Your task to perform on an android device: empty trash in the gmail app Image 0: 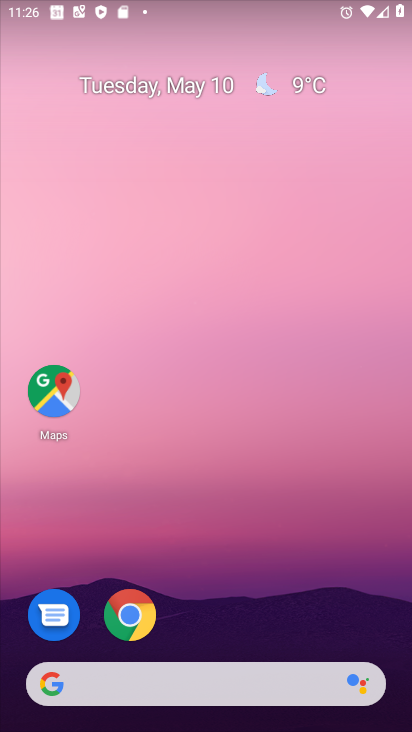
Step 0: drag from (234, 644) to (263, 312)
Your task to perform on an android device: empty trash in the gmail app Image 1: 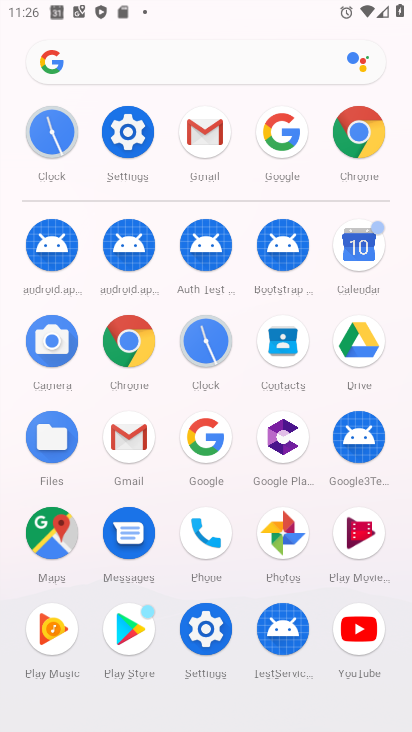
Step 1: click (132, 442)
Your task to perform on an android device: empty trash in the gmail app Image 2: 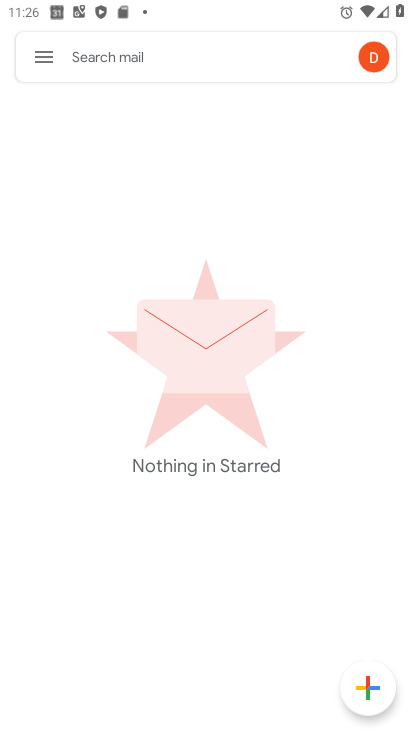
Step 2: click (32, 51)
Your task to perform on an android device: empty trash in the gmail app Image 3: 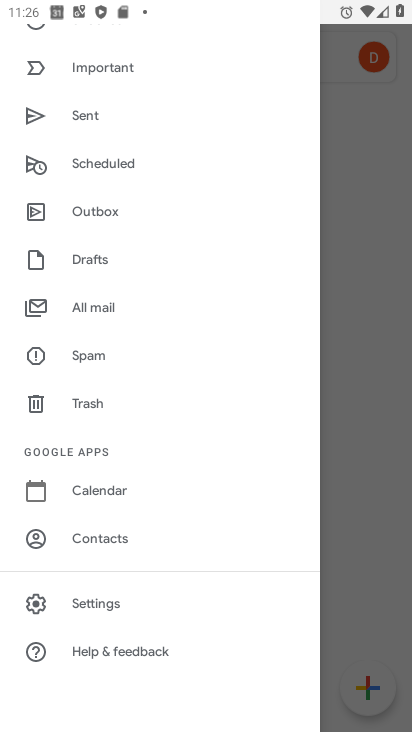
Step 3: click (83, 400)
Your task to perform on an android device: empty trash in the gmail app Image 4: 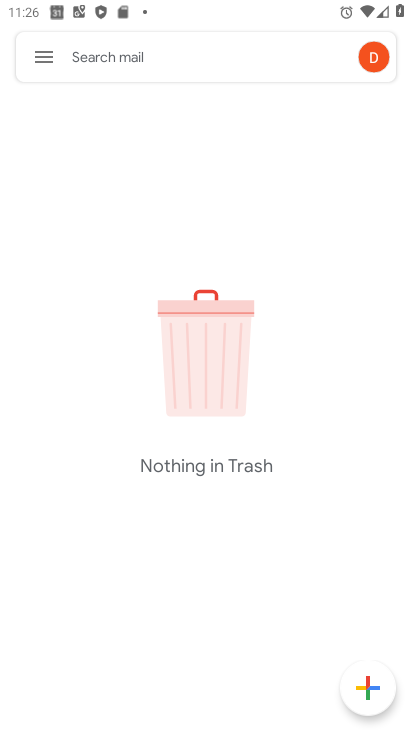
Step 4: task complete